Your task to perform on an android device: Go to internet settings Image 0: 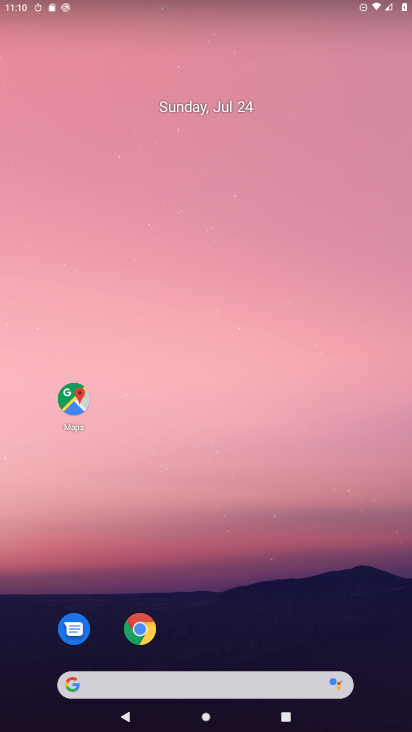
Step 0: click (397, 574)
Your task to perform on an android device: Go to internet settings Image 1: 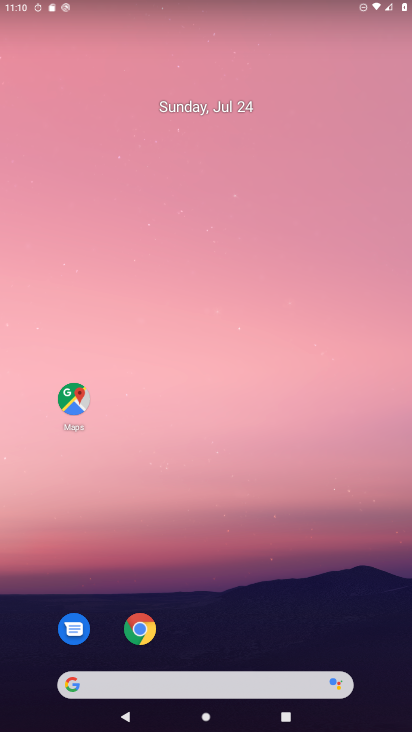
Step 1: drag from (233, 616) to (375, 11)
Your task to perform on an android device: Go to internet settings Image 2: 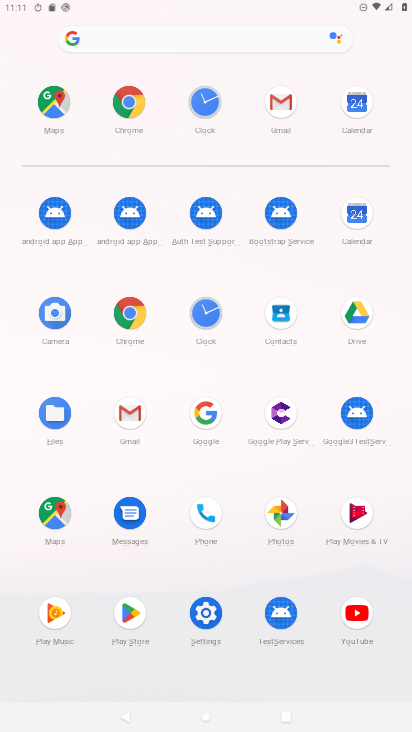
Step 2: drag from (228, 522) to (321, 86)
Your task to perform on an android device: Go to internet settings Image 3: 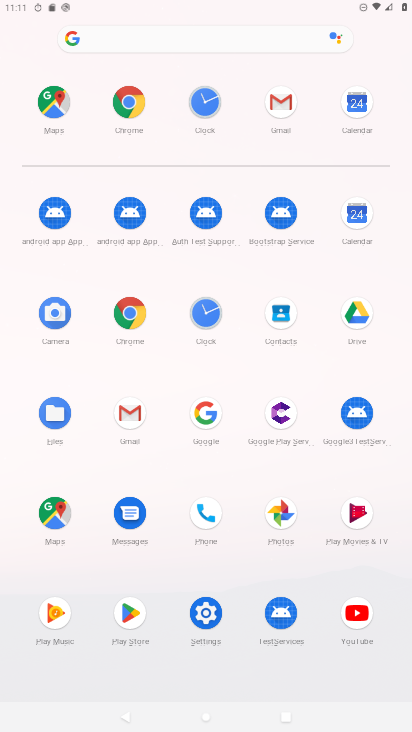
Step 3: click (206, 638)
Your task to perform on an android device: Go to internet settings Image 4: 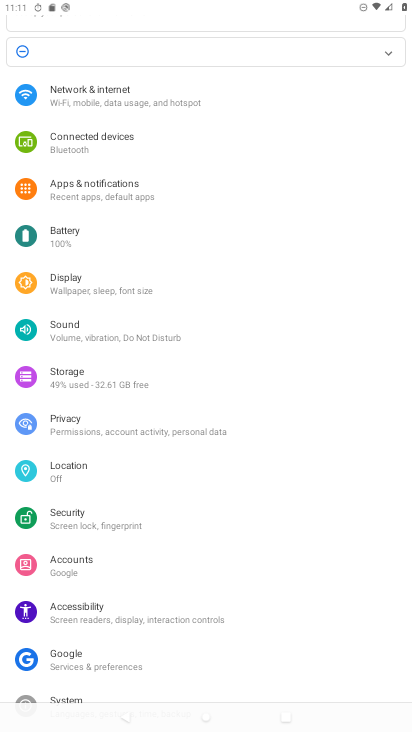
Step 4: click (138, 108)
Your task to perform on an android device: Go to internet settings Image 5: 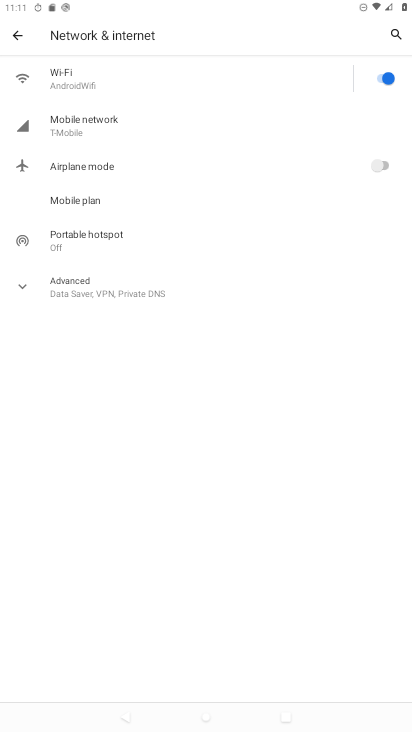
Step 5: click (126, 80)
Your task to perform on an android device: Go to internet settings Image 6: 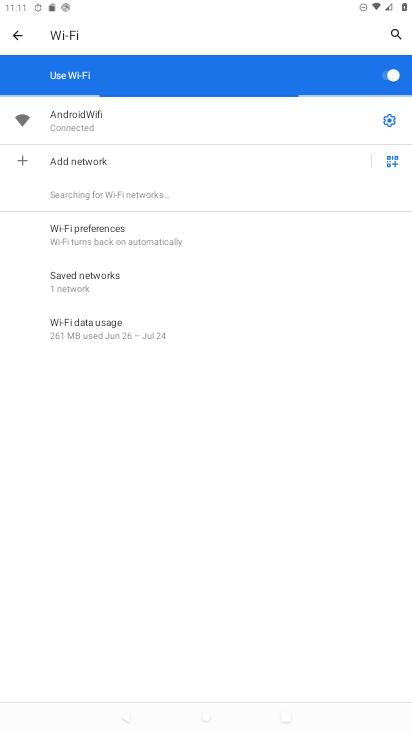
Step 6: task complete